Your task to perform on an android device: turn off data saver in the chrome app Image 0: 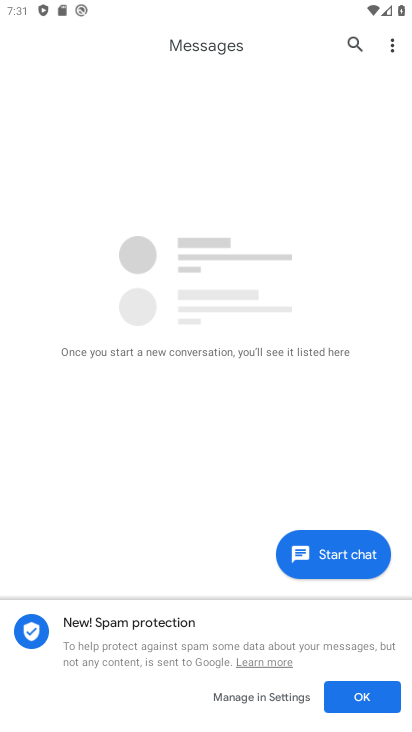
Step 0: press home button
Your task to perform on an android device: turn off data saver in the chrome app Image 1: 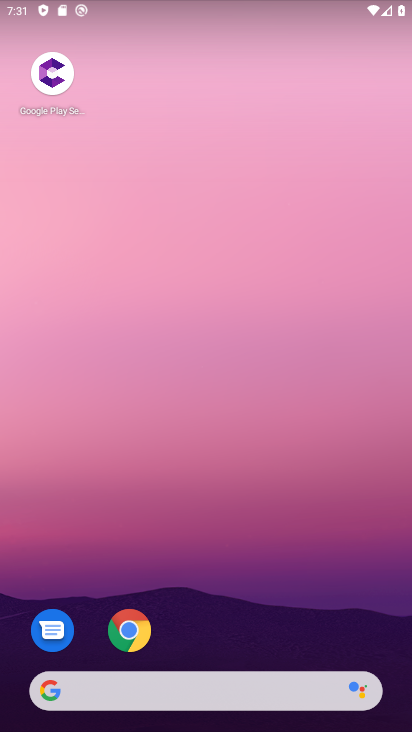
Step 1: click (138, 631)
Your task to perform on an android device: turn off data saver in the chrome app Image 2: 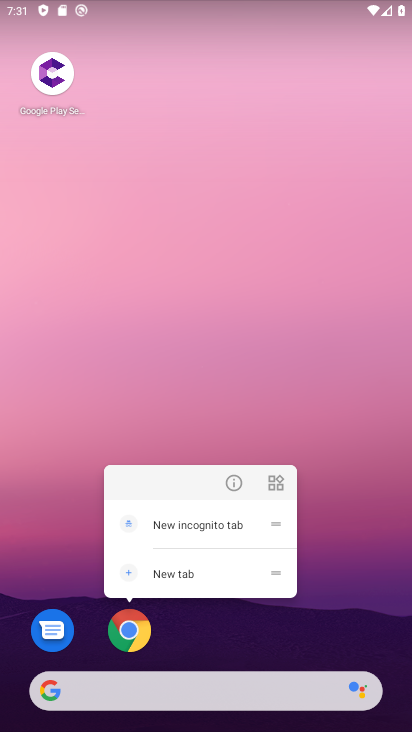
Step 2: click (129, 629)
Your task to perform on an android device: turn off data saver in the chrome app Image 3: 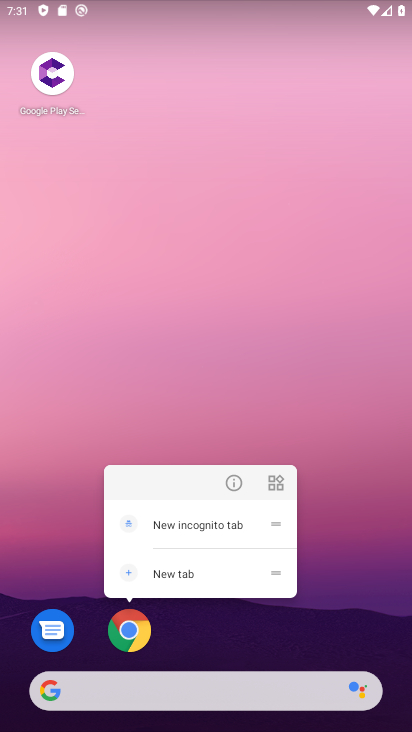
Step 3: click (129, 627)
Your task to perform on an android device: turn off data saver in the chrome app Image 4: 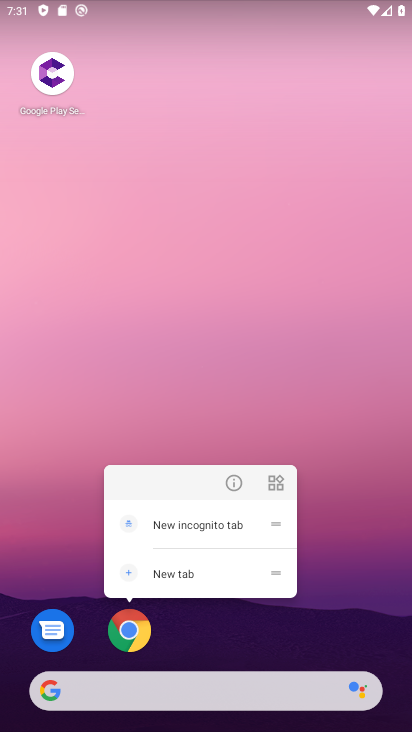
Step 4: click (133, 618)
Your task to perform on an android device: turn off data saver in the chrome app Image 5: 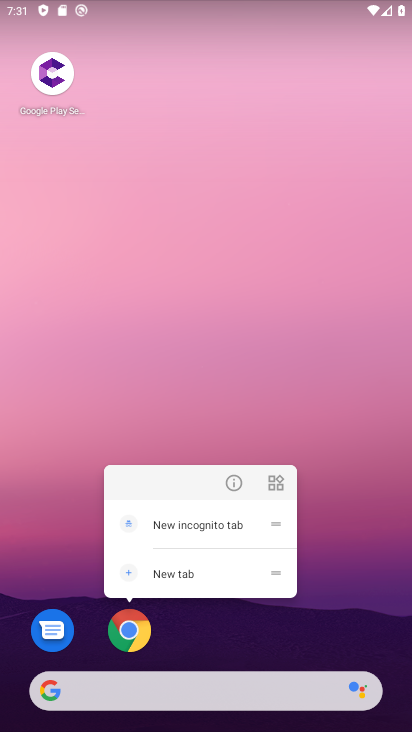
Step 5: click (131, 629)
Your task to perform on an android device: turn off data saver in the chrome app Image 6: 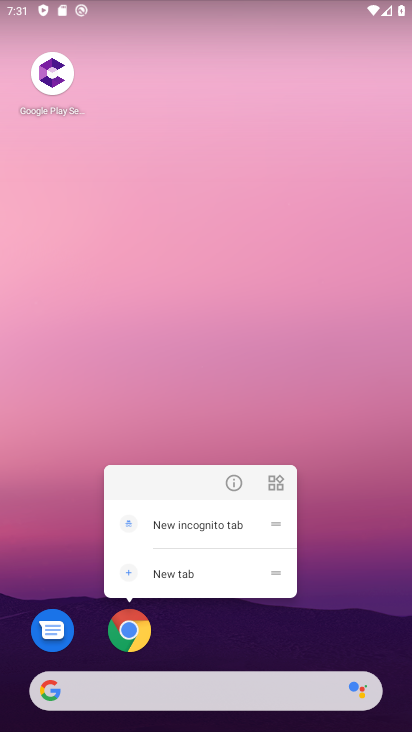
Step 6: click (131, 628)
Your task to perform on an android device: turn off data saver in the chrome app Image 7: 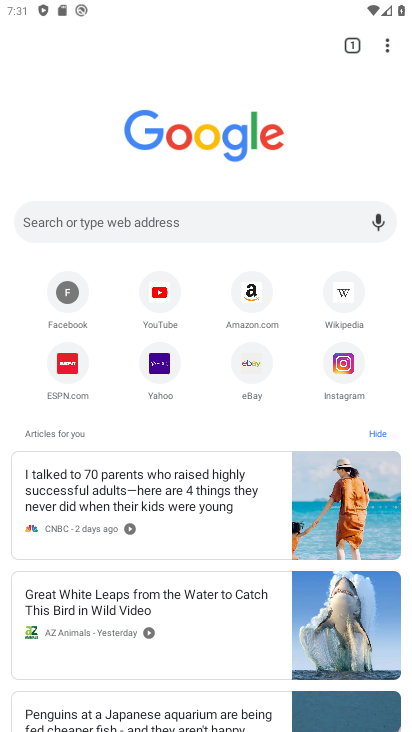
Step 7: drag from (388, 42) to (246, 391)
Your task to perform on an android device: turn off data saver in the chrome app Image 8: 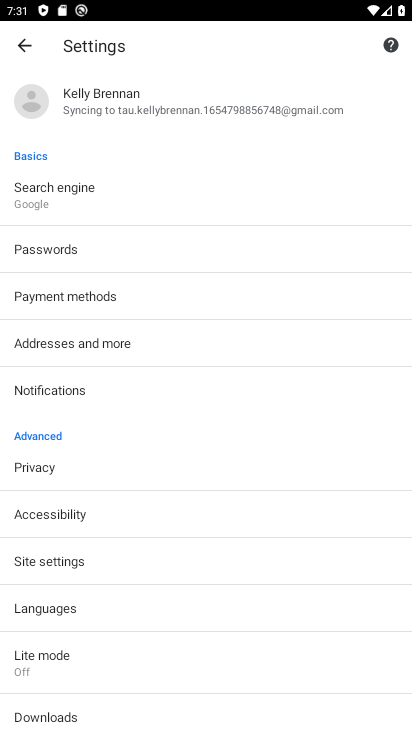
Step 8: click (56, 653)
Your task to perform on an android device: turn off data saver in the chrome app Image 9: 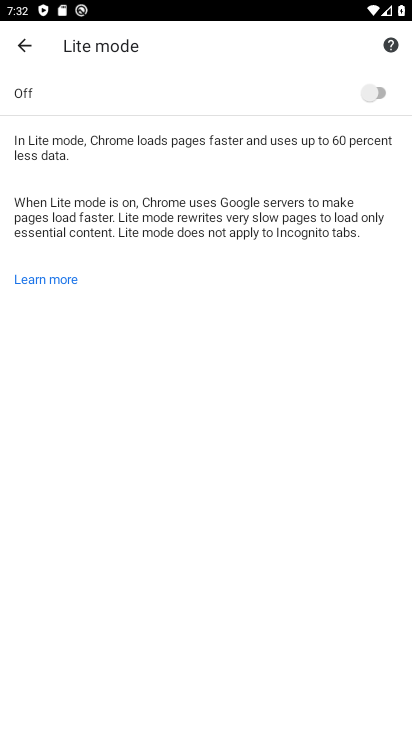
Step 9: task complete